Your task to perform on an android device: Go to Maps Image 0: 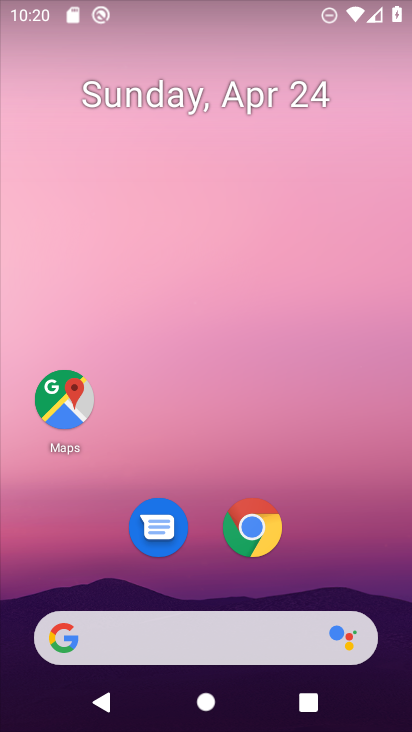
Step 0: drag from (377, 614) to (257, 187)
Your task to perform on an android device: Go to Maps Image 1: 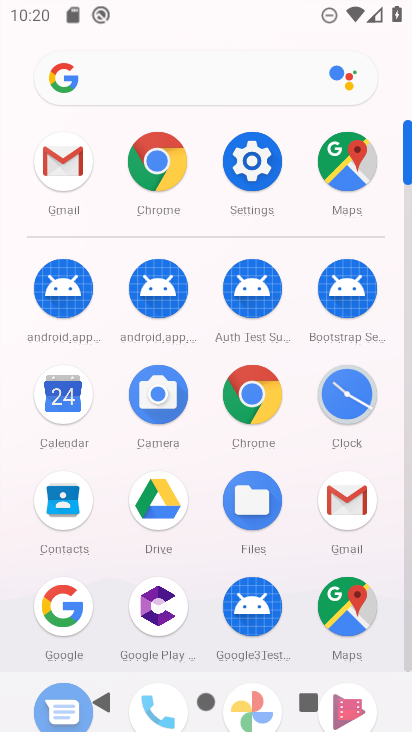
Step 1: click (354, 601)
Your task to perform on an android device: Go to Maps Image 2: 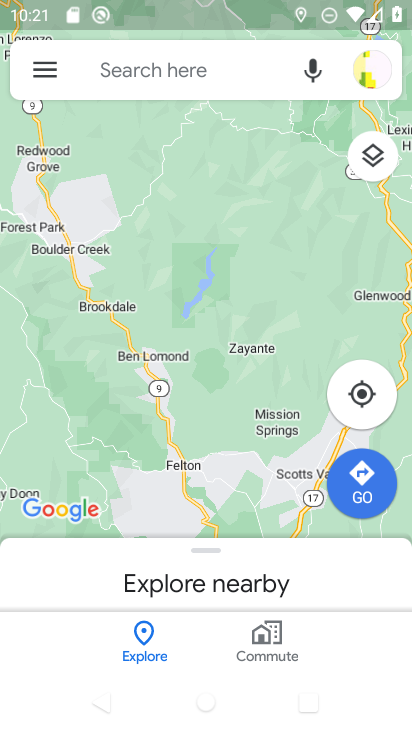
Step 2: task complete